Your task to perform on an android device: move a message to another label in the gmail app Image 0: 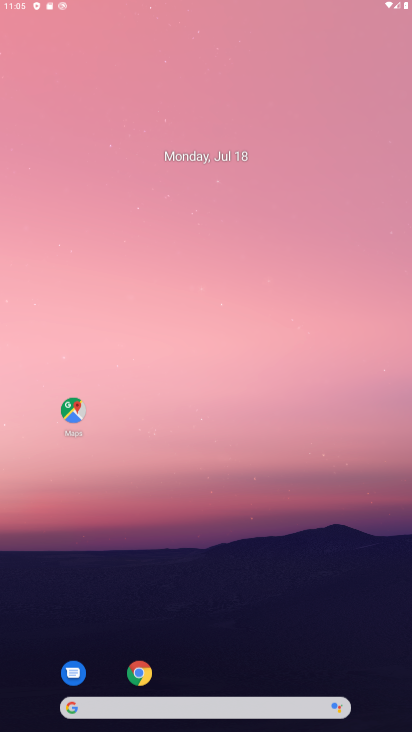
Step 0: press home button
Your task to perform on an android device: move a message to another label in the gmail app Image 1: 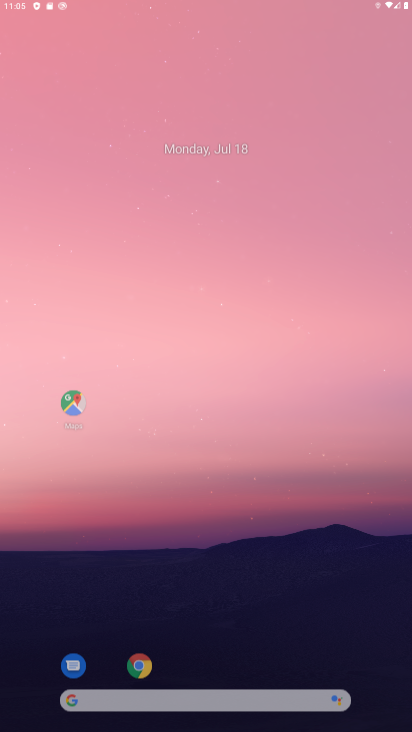
Step 1: drag from (216, 673) to (296, 89)
Your task to perform on an android device: move a message to another label in the gmail app Image 2: 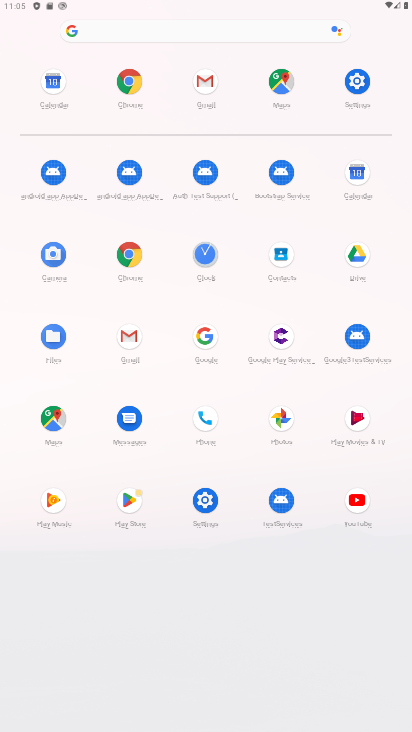
Step 2: click (204, 73)
Your task to perform on an android device: move a message to another label in the gmail app Image 3: 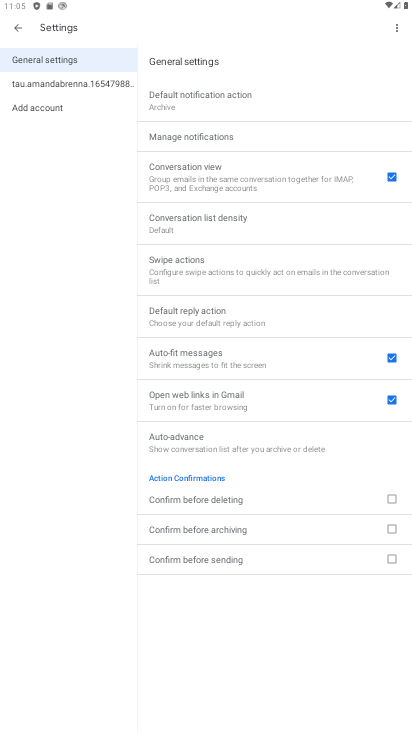
Step 3: click (8, 27)
Your task to perform on an android device: move a message to another label in the gmail app Image 4: 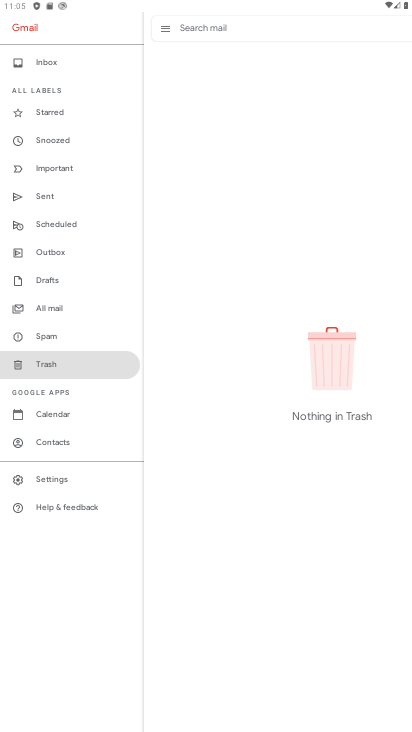
Step 4: click (73, 53)
Your task to perform on an android device: move a message to another label in the gmail app Image 5: 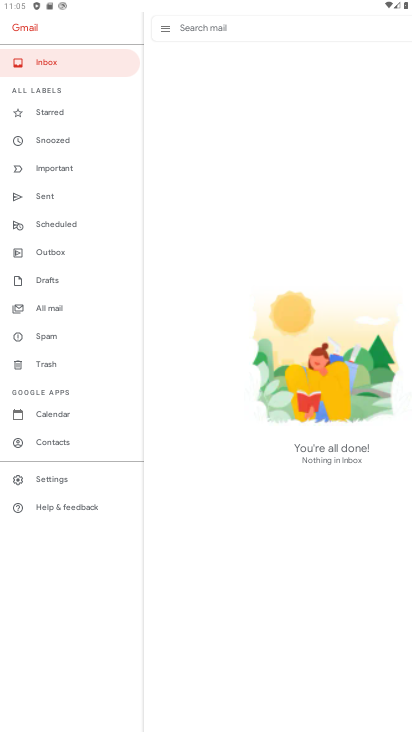
Step 5: task complete